Your task to perform on an android device: Set the phone to "Do not disturb". Image 0: 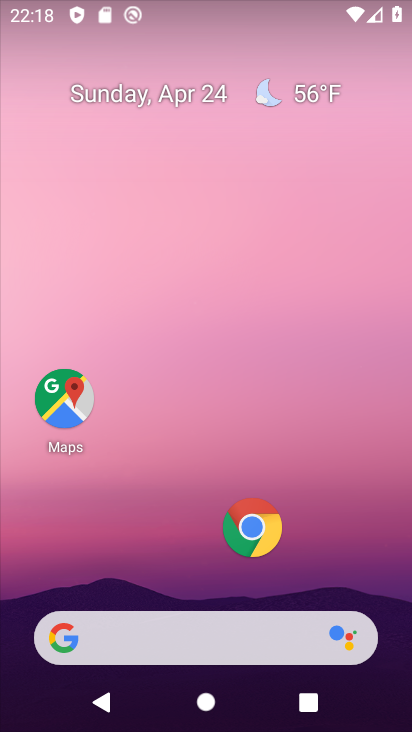
Step 0: drag from (180, 524) to (186, 4)
Your task to perform on an android device: Set the phone to "Do not disturb". Image 1: 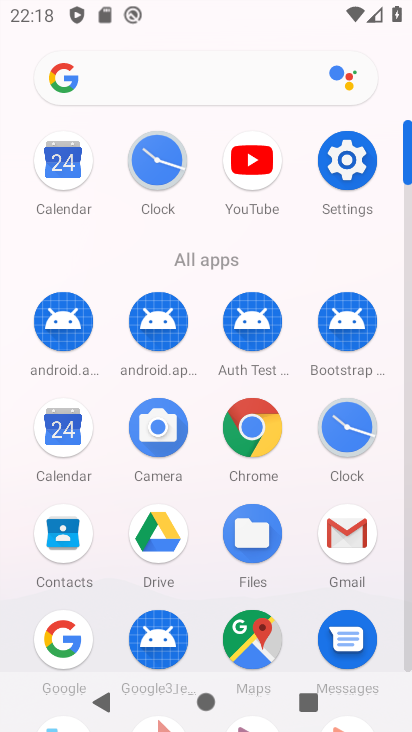
Step 1: click (362, 164)
Your task to perform on an android device: Set the phone to "Do not disturb". Image 2: 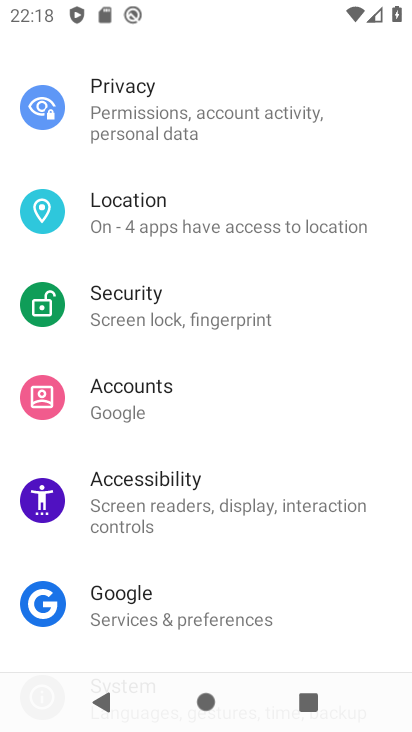
Step 2: drag from (198, 232) to (183, 660)
Your task to perform on an android device: Set the phone to "Do not disturb". Image 3: 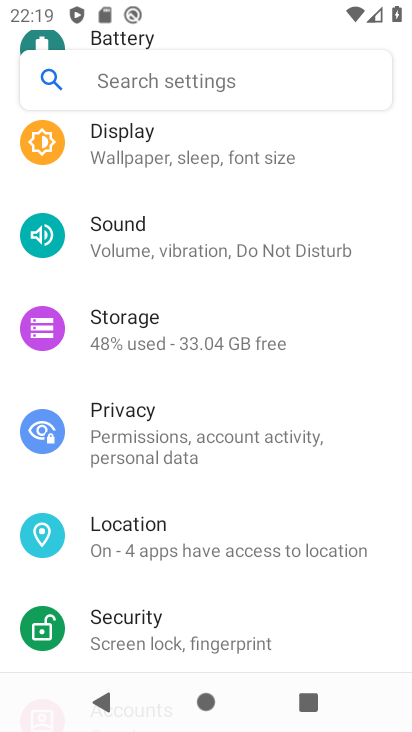
Step 3: drag from (186, 253) to (189, 444)
Your task to perform on an android device: Set the phone to "Do not disturb". Image 4: 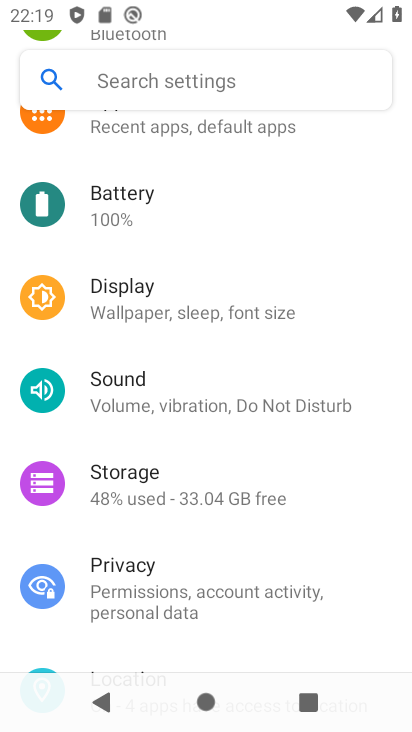
Step 4: click (156, 397)
Your task to perform on an android device: Set the phone to "Do not disturb". Image 5: 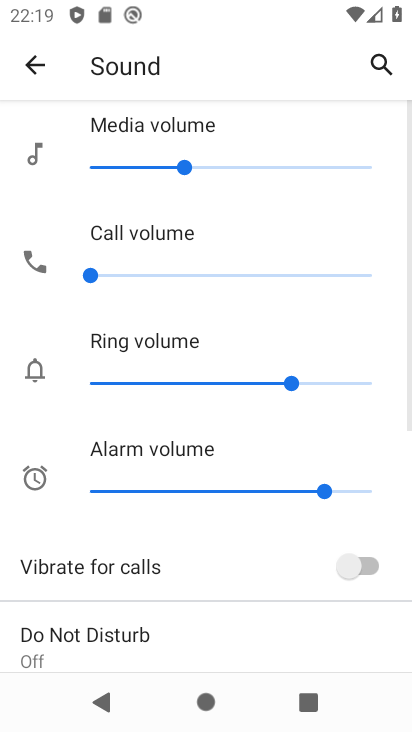
Step 5: drag from (153, 531) to (257, 72)
Your task to perform on an android device: Set the phone to "Do not disturb". Image 6: 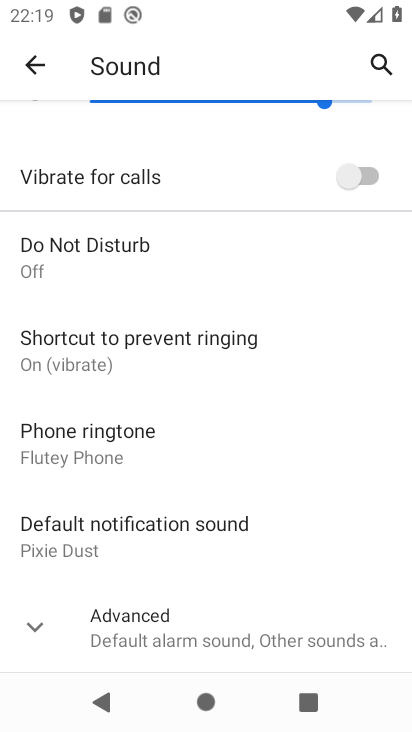
Step 6: click (119, 273)
Your task to perform on an android device: Set the phone to "Do not disturb". Image 7: 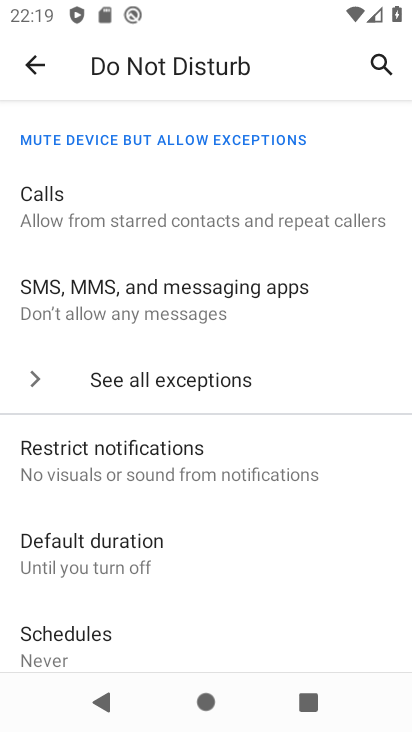
Step 7: drag from (187, 555) to (236, 130)
Your task to perform on an android device: Set the phone to "Do not disturb". Image 8: 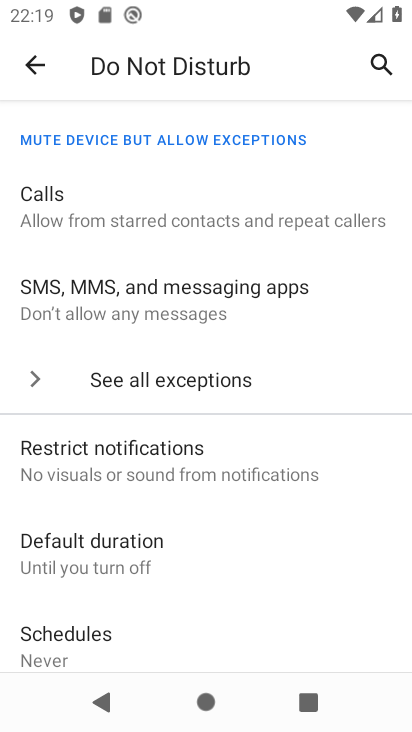
Step 8: click (299, 30)
Your task to perform on an android device: Set the phone to "Do not disturb". Image 9: 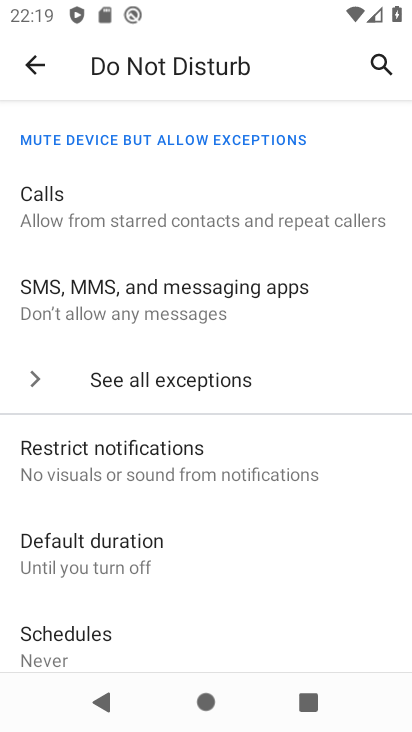
Step 9: drag from (140, 388) to (284, 7)
Your task to perform on an android device: Set the phone to "Do not disturb". Image 10: 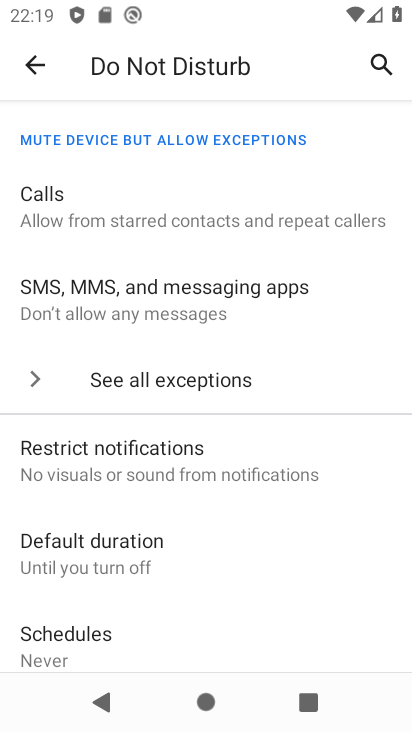
Step 10: drag from (138, 615) to (198, 75)
Your task to perform on an android device: Set the phone to "Do not disturb". Image 11: 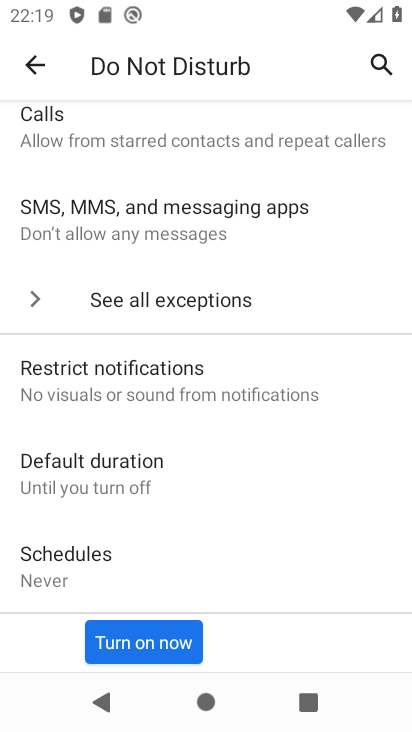
Step 11: click (129, 639)
Your task to perform on an android device: Set the phone to "Do not disturb". Image 12: 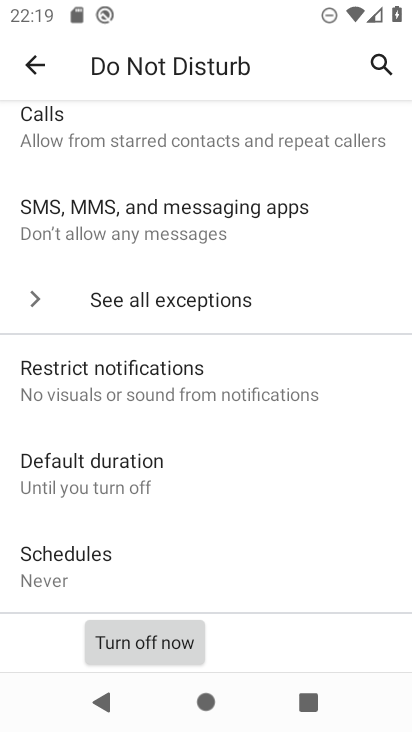
Step 12: task complete